Your task to perform on an android device: What's the weather going to be tomorrow? Image 0: 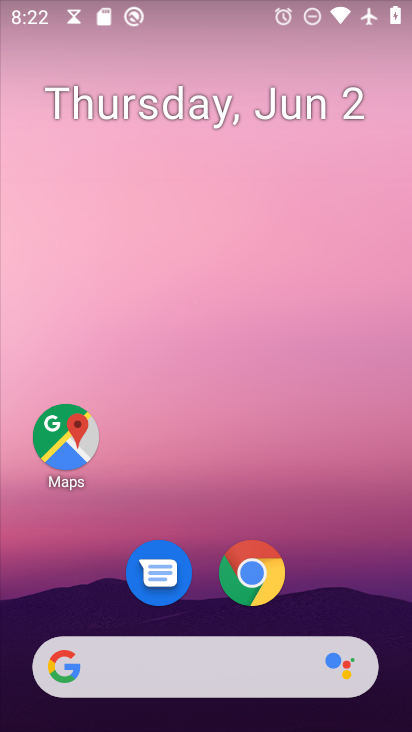
Step 0: press home button
Your task to perform on an android device: What's the weather going to be tomorrow? Image 1: 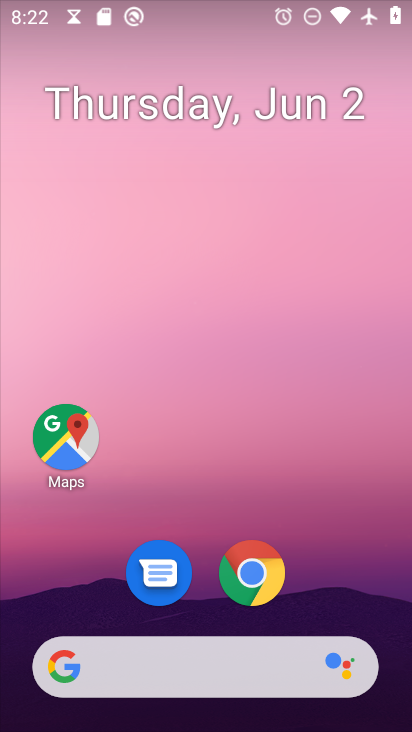
Step 1: click (65, 669)
Your task to perform on an android device: What's the weather going to be tomorrow? Image 2: 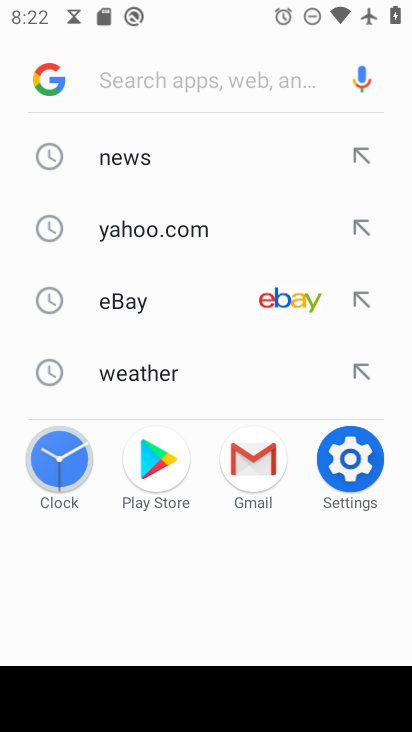
Step 2: click (163, 368)
Your task to perform on an android device: What's the weather going to be tomorrow? Image 3: 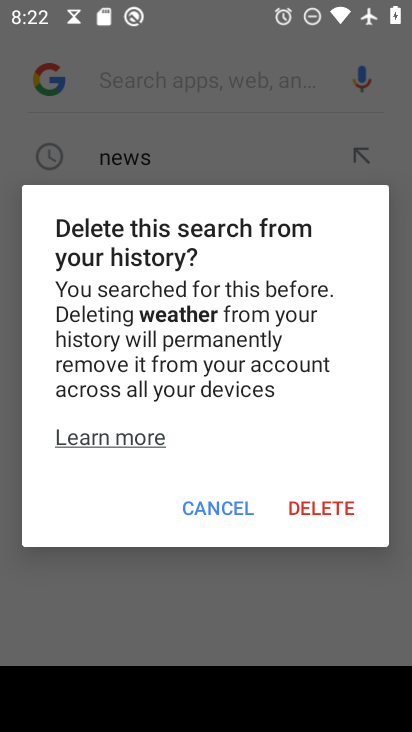
Step 3: click (200, 514)
Your task to perform on an android device: What's the weather going to be tomorrow? Image 4: 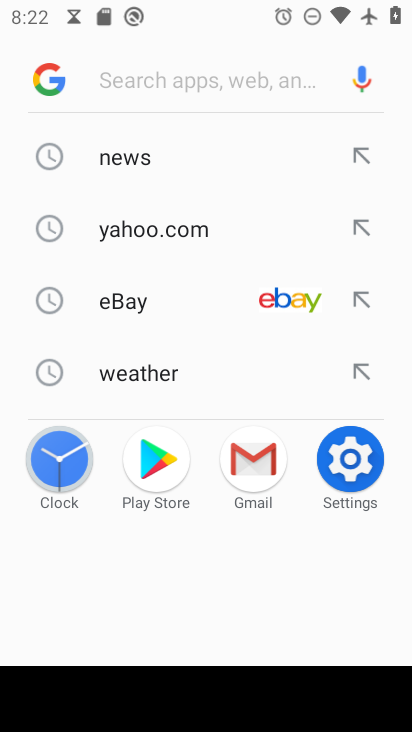
Step 4: click (137, 367)
Your task to perform on an android device: What's the weather going to be tomorrow? Image 5: 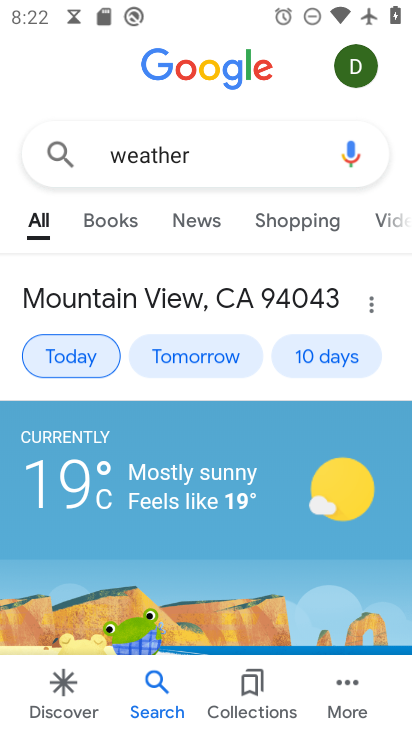
Step 5: click (196, 357)
Your task to perform on an android device: What's the weather going to be tomorrow? Image 6: 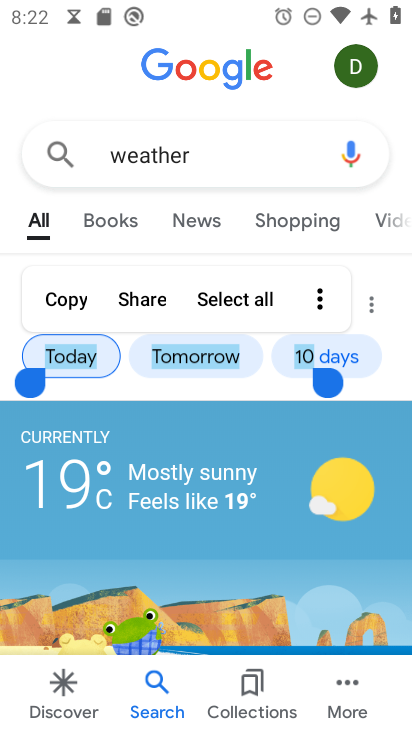
Step 6: click (188, 363)
Your task to perform on an android device: What's the weather going to be tomorrow? Image 7: 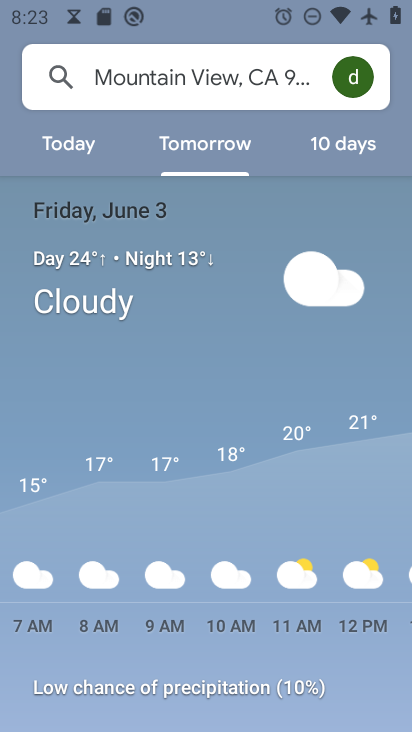
Step 7: task complete